Your task to perform on an android device: change alarm snooze length Image 0: 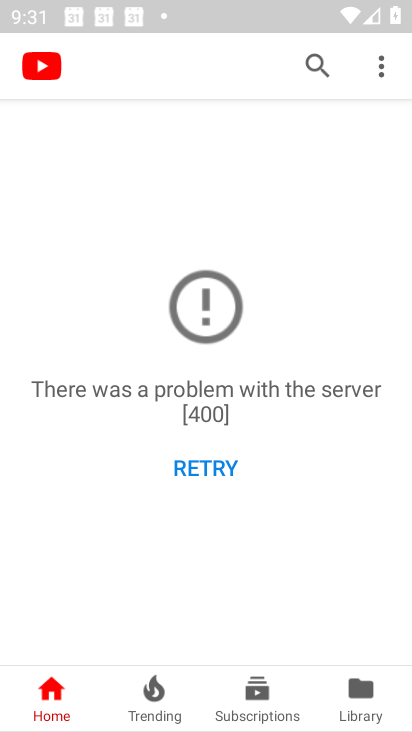
Step 0: press home button
Your task to perform on an android device: change alarm snooze length Image 1: 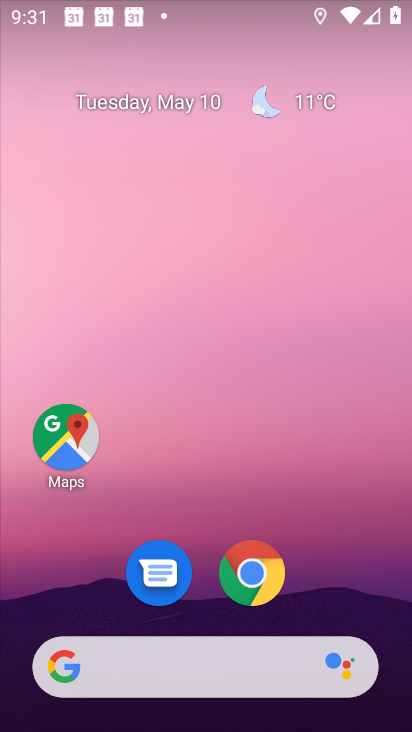
Step 1: drag from (306, 560) to (306, 111)
Your task to perform on an android device: change alarm snooze length Image 2: 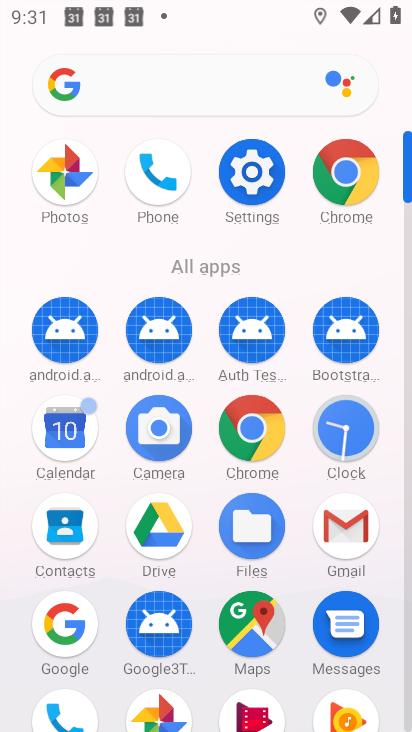
Step 2: click (366, 447)
Your task to perform on an android device: change alarm snooze length Image 3: 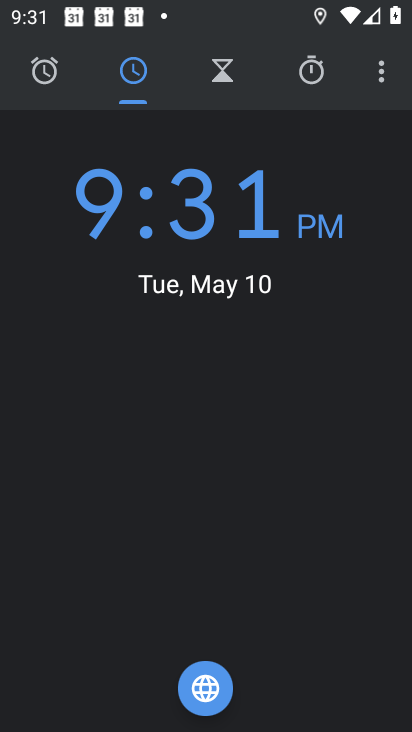
Step 3: drag from (378, 77) to (345, 119)
Your task to perform on an android device: change alarm snooze length Image 4: 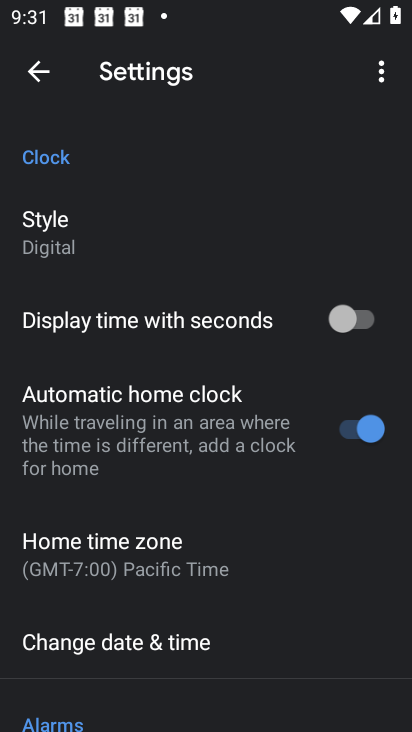
Step 4: drag from (233, 580) to (240, 218)
Your task to perform on an android device: change alarm snooze length Image 5: 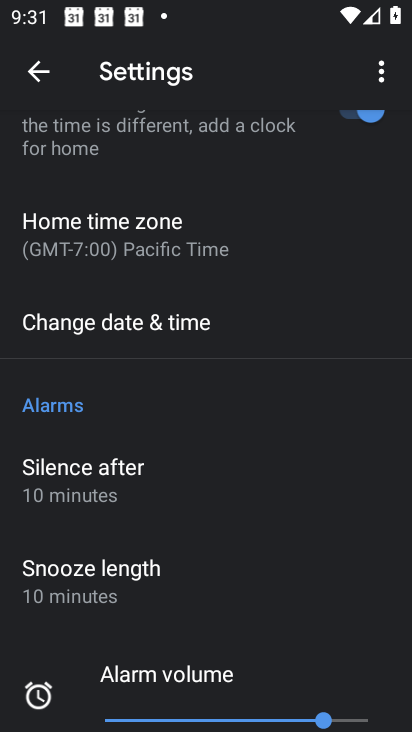
Step 5: click (185, 584)
Your task to perform on an android device: change alarm snooze length Image 6: 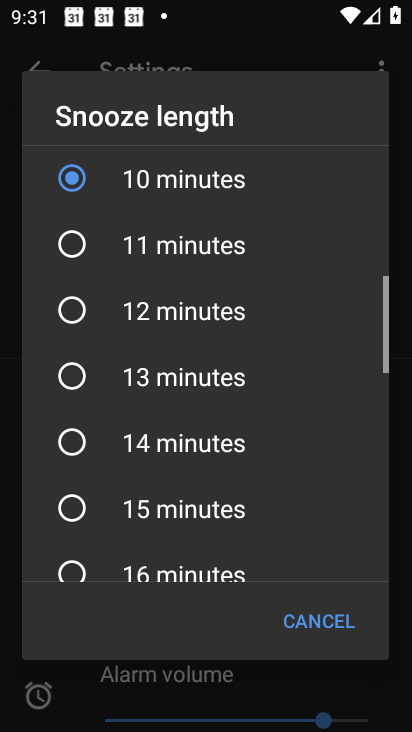
Step 6: click (227, 251)
Your task to perform on an android device: change alarm snooze length Image 7: 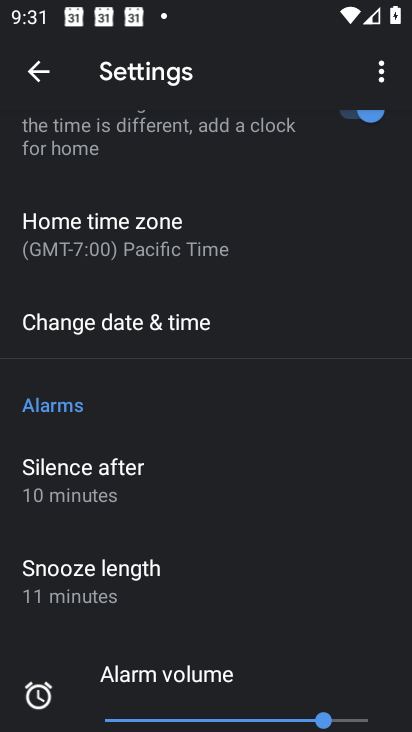
Step 7: task complete